Your task to perform on an android device: Go to internet settings Image 0: 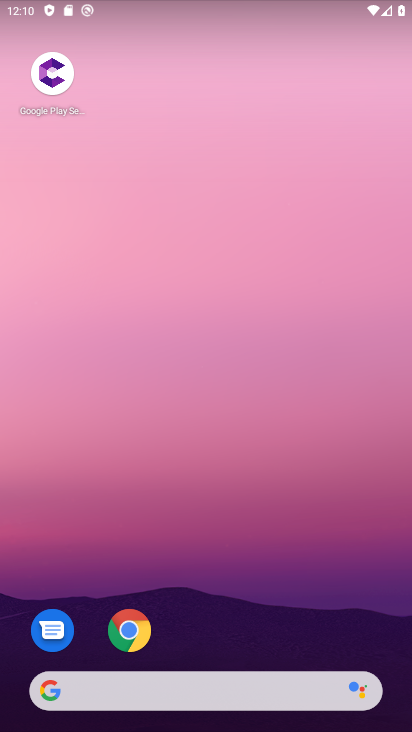
Step 0: drag from (214, 661) to (213, 173)
Your task to perform on an android device: Go to internet settings Image 1: 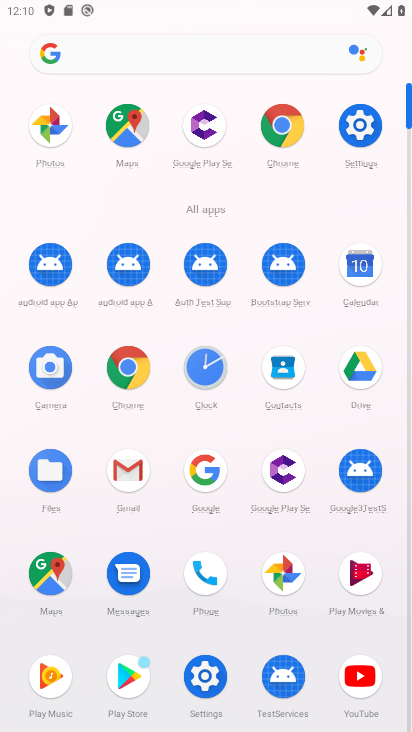
Step 1: click (368, 130)
Your task to perform on an android device: Go to internet settings Image 2: 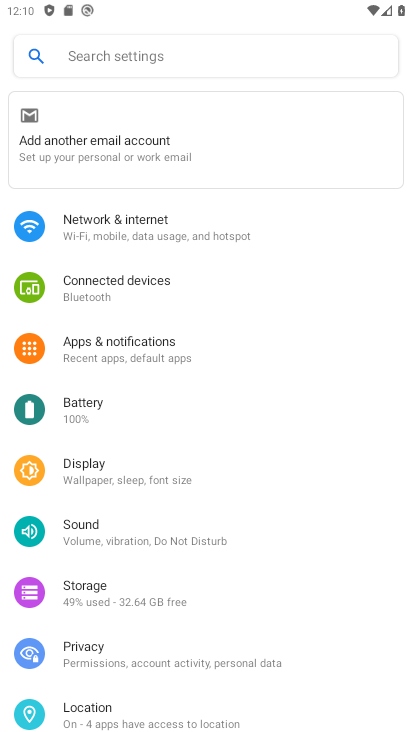
Step 2: click (119, 218)
Your task to perform on an android device: Go to internet settings Image 3: 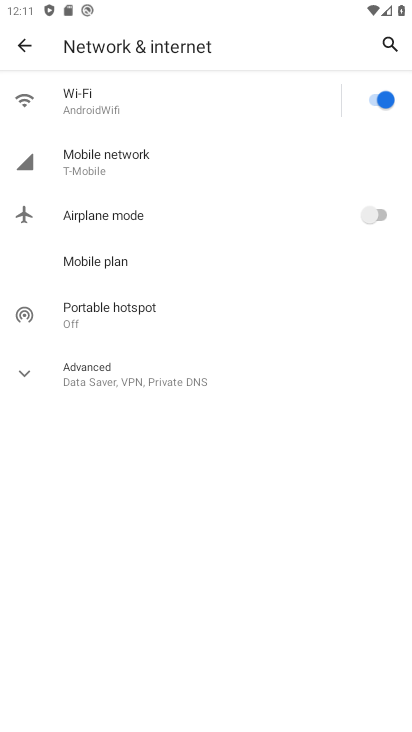
Step 3: click (101, 154)
Your task to perform on an android device: Go to internet settings Image 4: 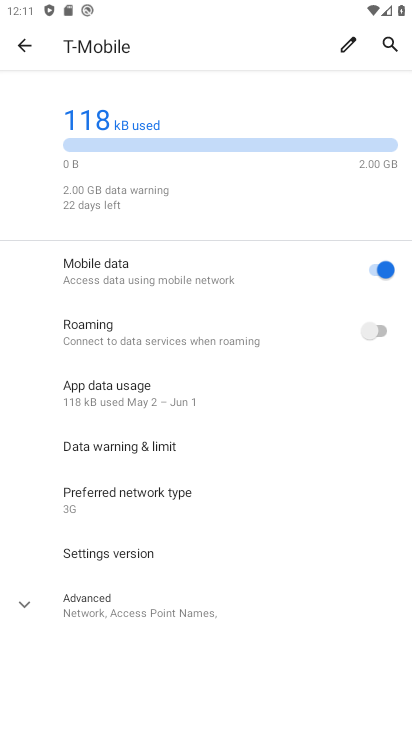
Step 4: task complete